Your task to perform on an android device: open app "Google Play Music" Image 0: 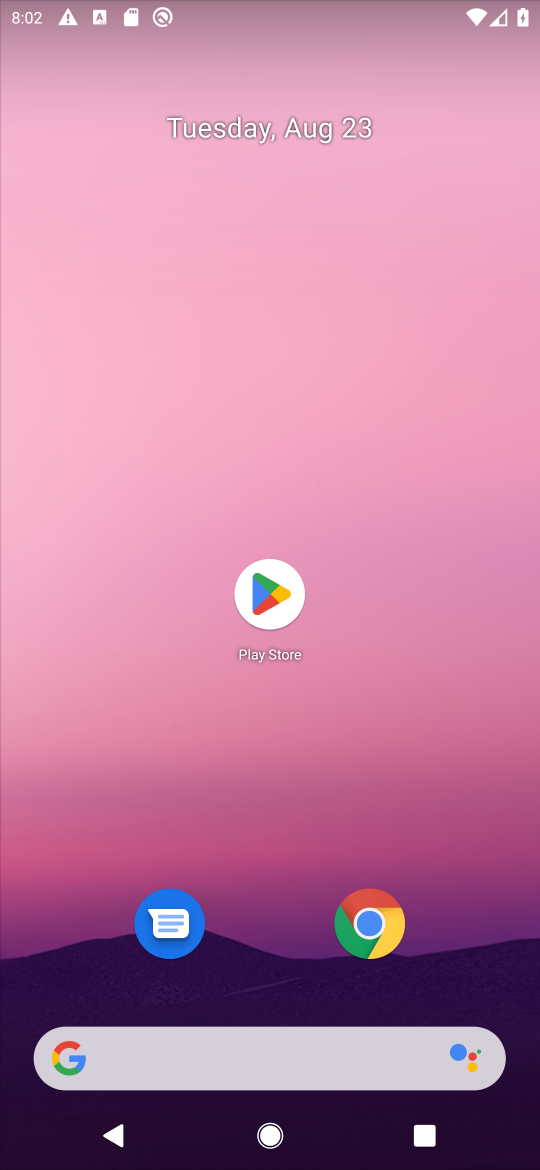
Step 0: click (268, 600)
Your task to perform on an android device: open app "Google Play Music" Image 1: 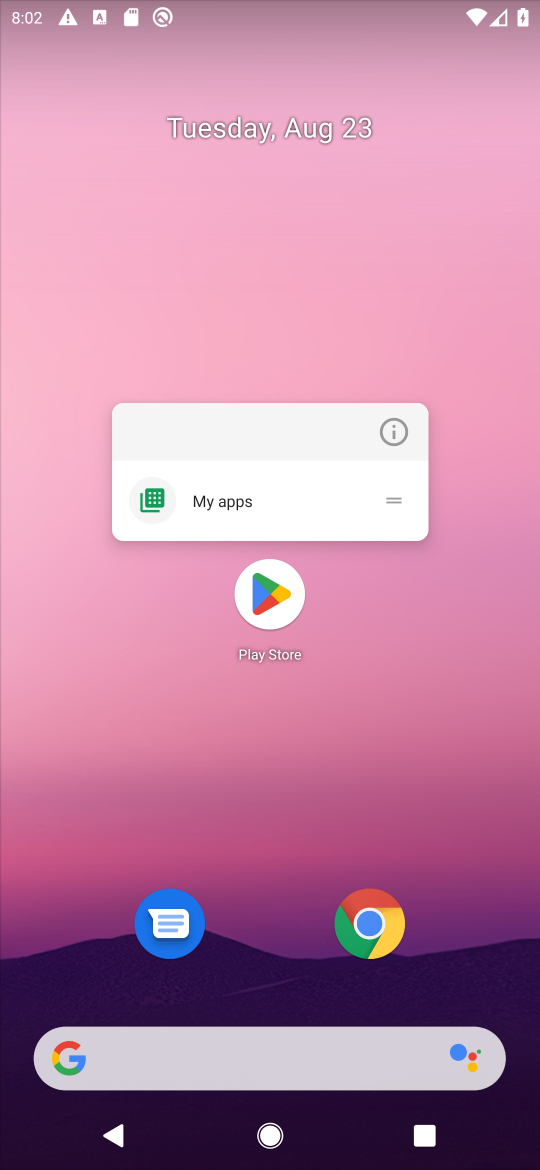
Step 1: click (268, 600)
Your task to perform on an android device: open app "Google Play Music" Image 2: 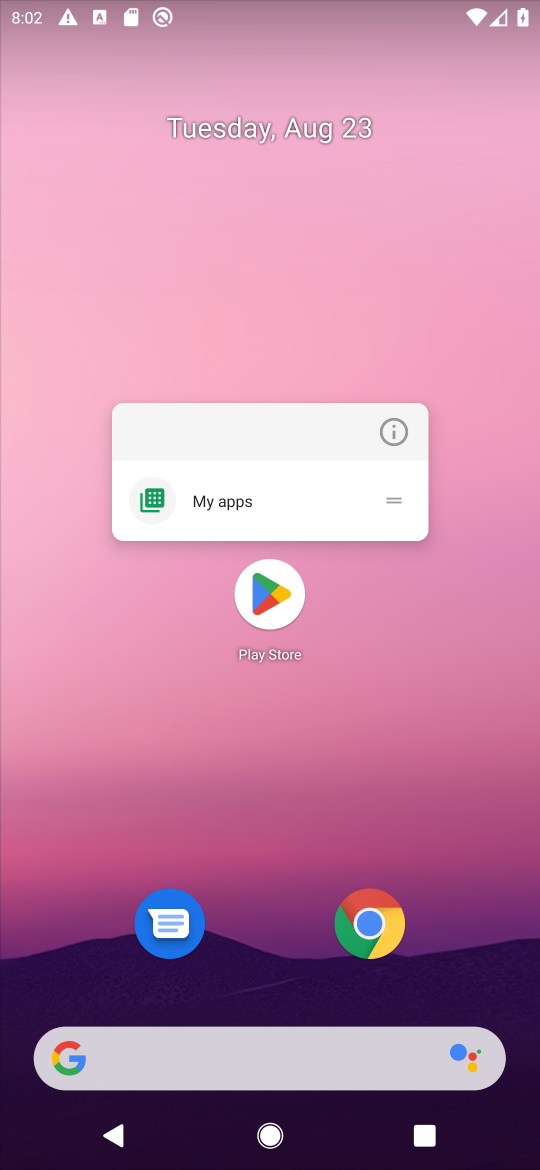
Step 2: click (268, 598)
Your task to perform on an android device: open app "Google Play Music" Image 3: 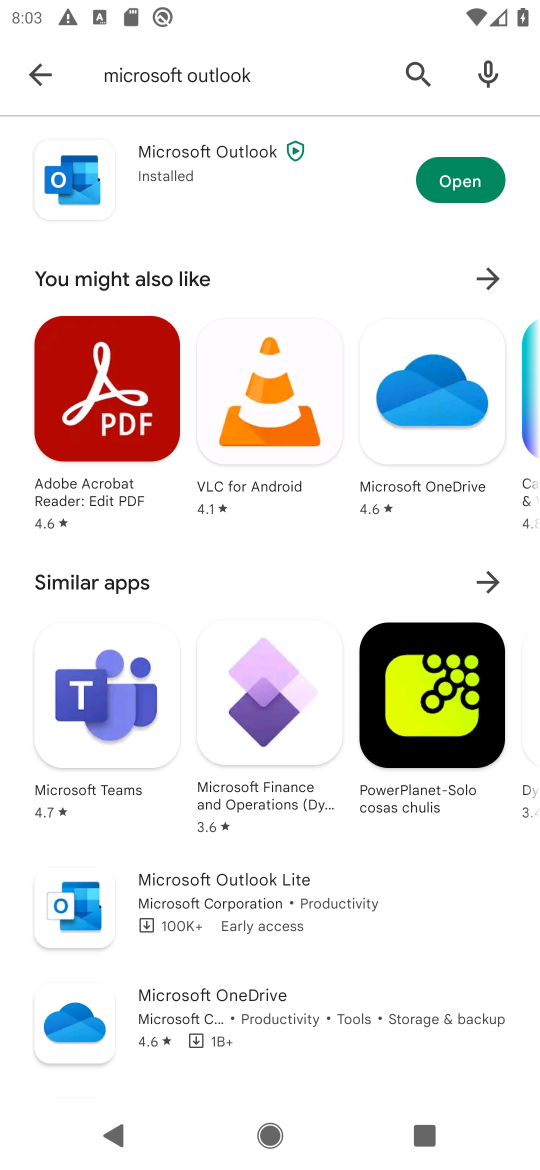
Step 3: click (417, 70)
Your task to perform on an android device: open app "Google Play Music" Image 4: 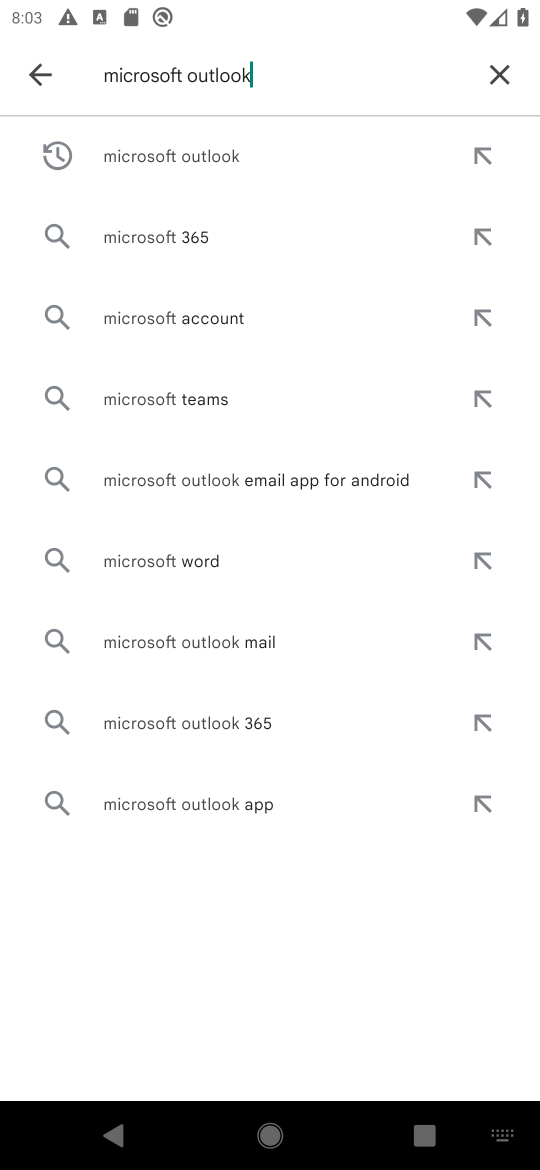
Step 4: click (501, 77)
Your task to perform on an android device: open app "Google Play Music" Image 5: 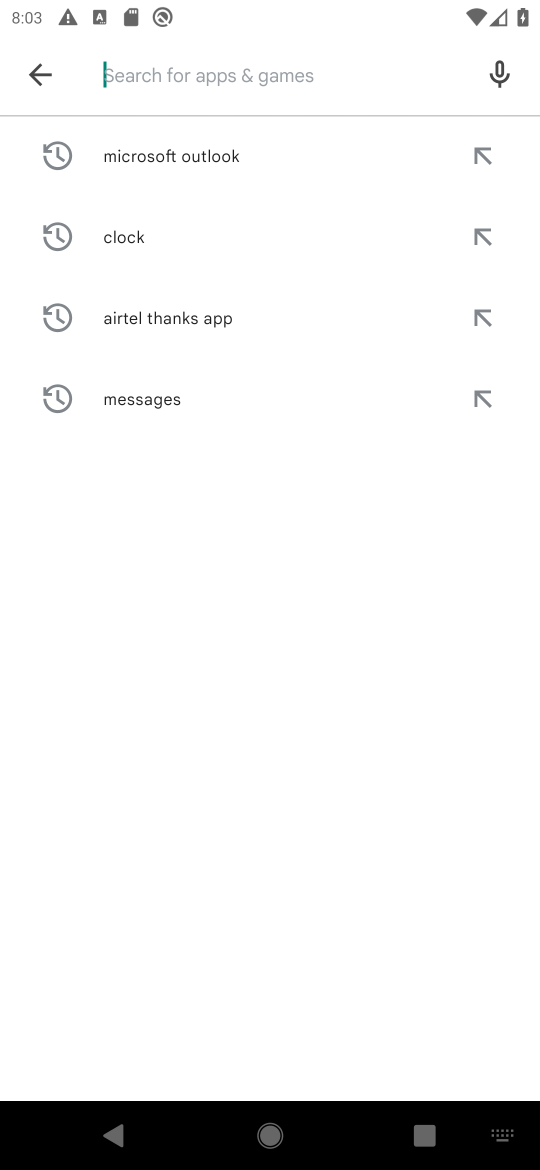
Step 5: type "Google Play Music"
Your task to perform on an android device: open app "Google Play Music" Image 6: 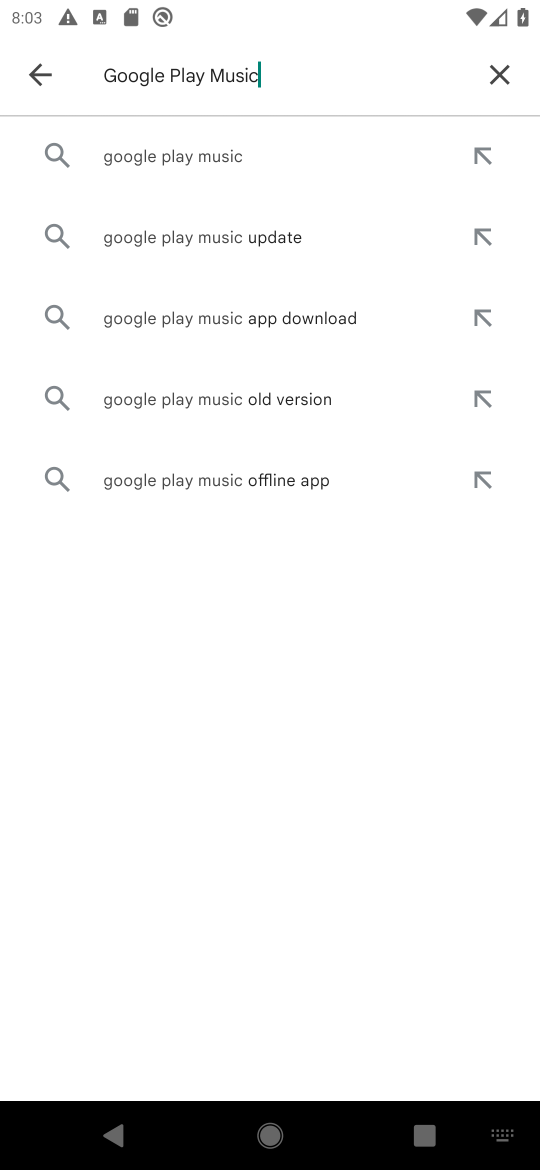
Step 6: click (162, 157)
Your task to perform on an android device: open app "Google Play Music" Image 7: 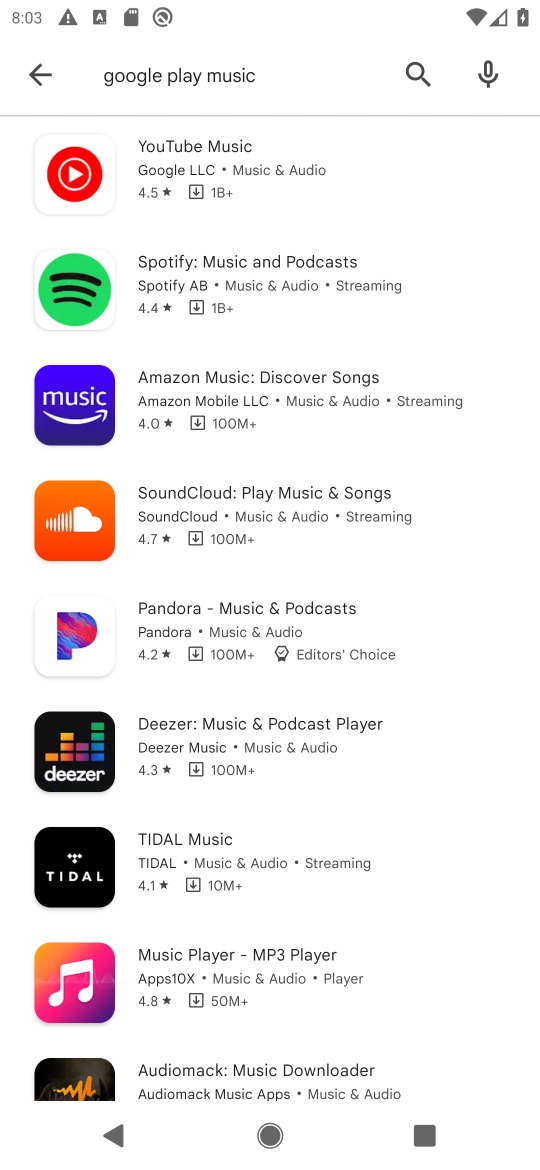
Step 7: task complete